Your task to perform on an android device: Go to accessibility settings Image 0: 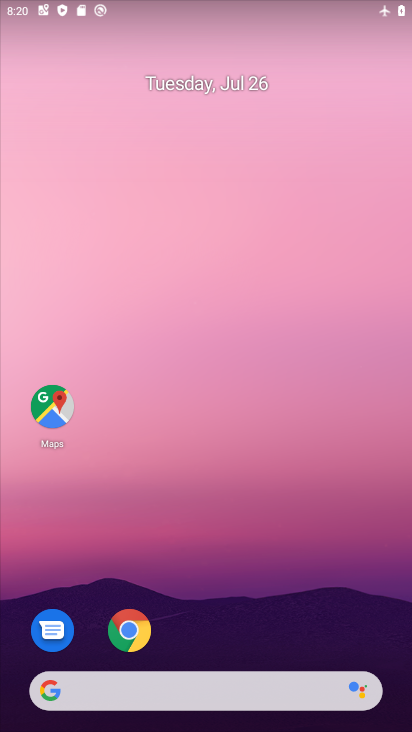
Step 0: drag from (220, 637) to (238, 0)
Your task to perform on an android device: Go to accessibility settings Image 1: 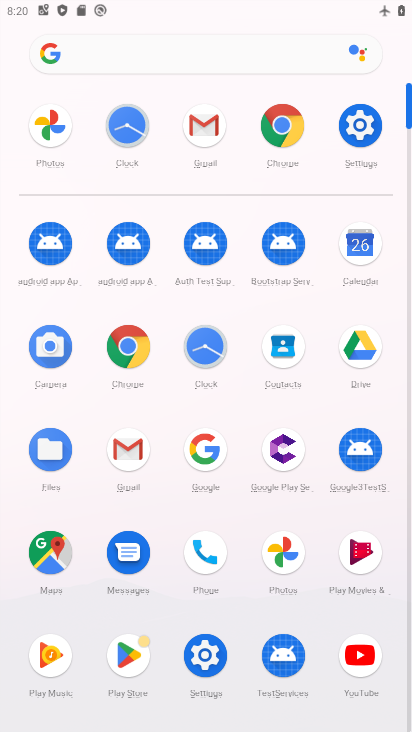
Step 1: click (214, 649)
Your task to perform on an android device: Go to accessibility settings Image 2: 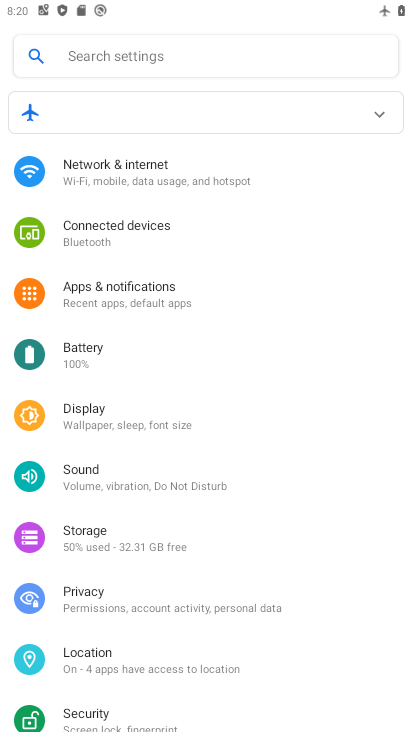
Step 2: drag from (124, 688) to (128, 259)
Your task to perform on an android device: Go to accessibility settings Image 3: 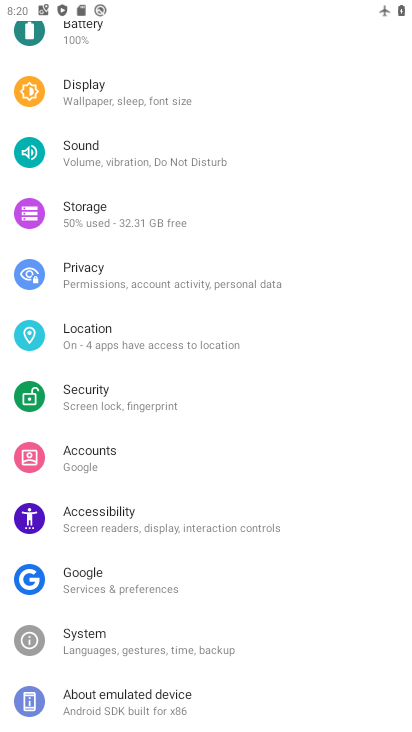
Step 3: click (167, 517)
Your task to perform on an android device: Go to accessibility settings Image 4: 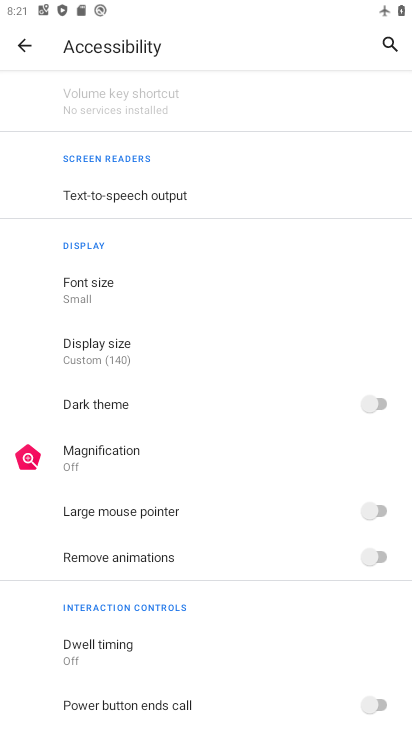
Step 4: task complete